Your task to perform on an android device: turn off javascript in the chrome app Image 0: 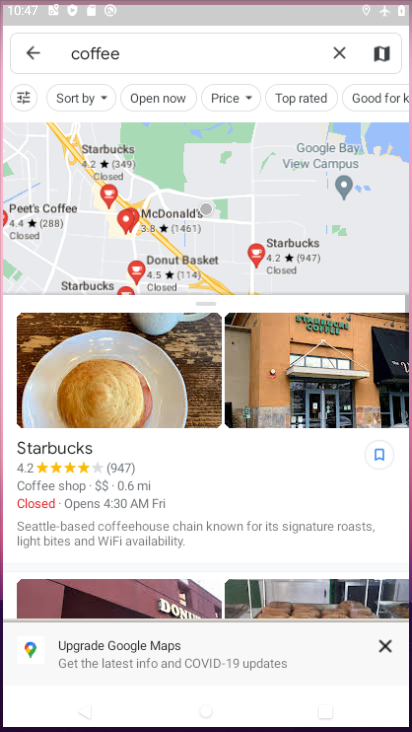
Step 0: drag from (224, 626) to (224, 29)
Your task to perform on an android device: turn off javascript in the chrome app Image 1: 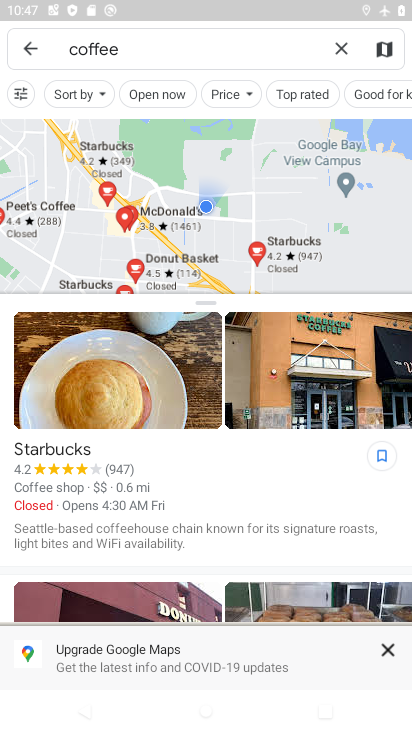
Step 1: press home button
Your task to perform on an android device: turn off javascript in the chrome app Image 2: 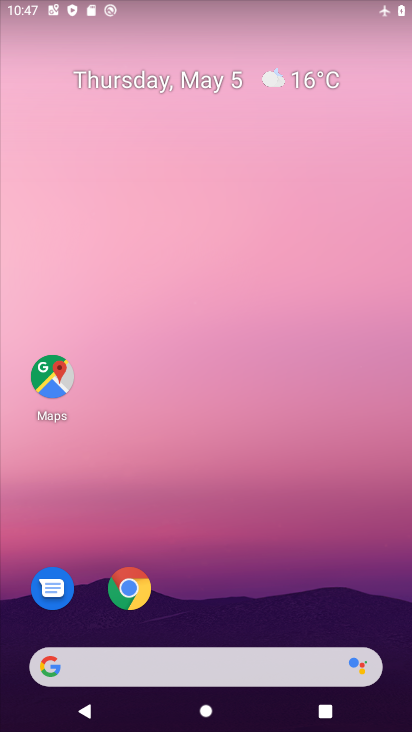
Step 2: drag from (241, 619) to (198, 46)
Your task to perform on an android device: turn off javascript in the chrome app Image 3: 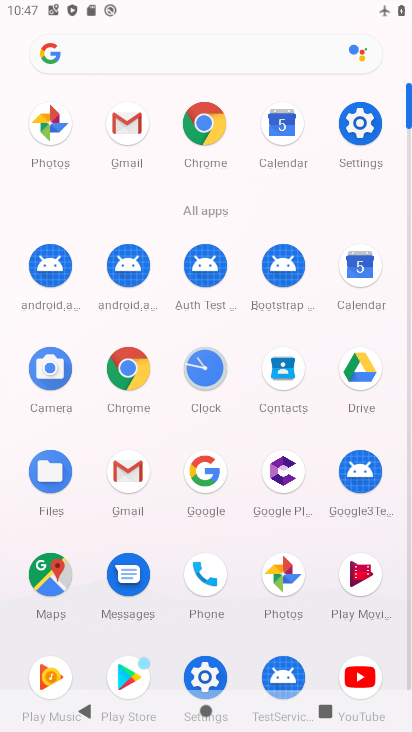
Step 3: click (203, 121)
Your task to perform on an android device: turn off javascript in the chrome app Image 4: 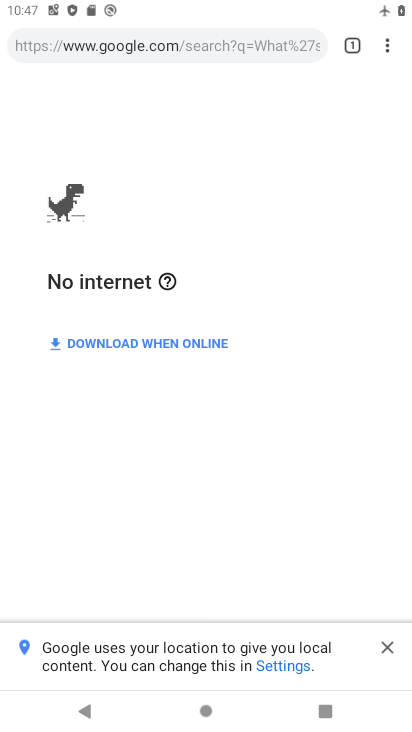
Step 4: drag from (395, 65) to (226, 502)
Your task to perform on an android device: turn off javascript in the chrome app Image 5: 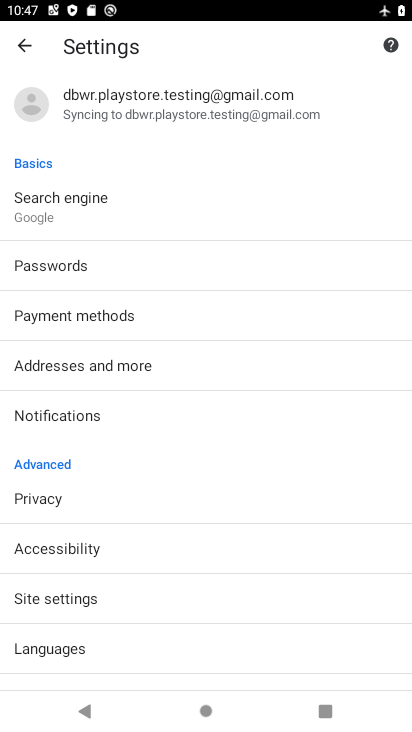
Step 5: click (116, 602)
Your task to perform on an android device: turn off javascript in the chrome app Image 6: 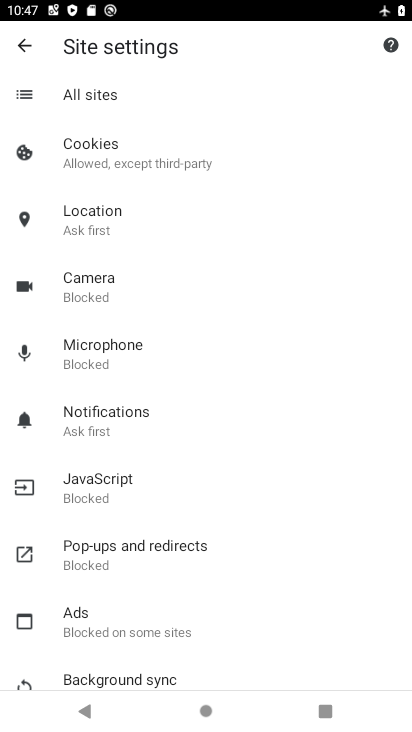
Step 6: click (128, 490)
Your task to perform on an android device: turn off javascript in the chrome app Image 7: 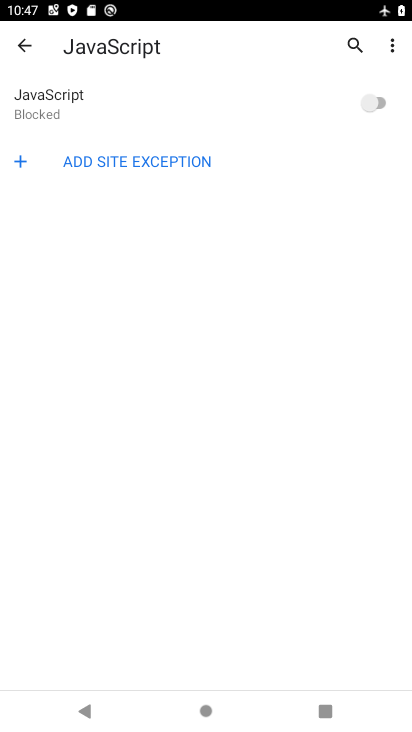
Step 7: task complete